Your task to perform on an android device: open chrome privacy settings Image 0: 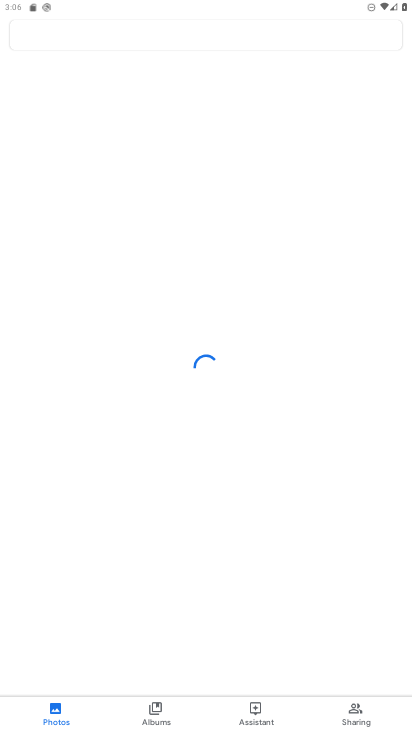
Step 0: press home button
Your task to perform on an android device: open chrome privacy settings Image 1: 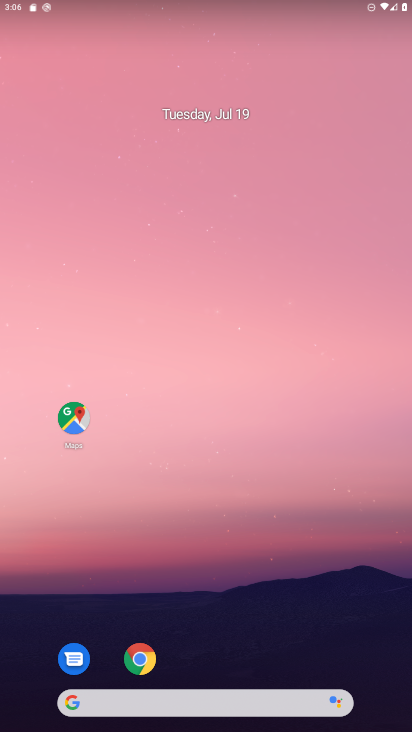
Step 1: click (141, 649)
Your task to perform on an android device: open chrome privacy settings Image 2: 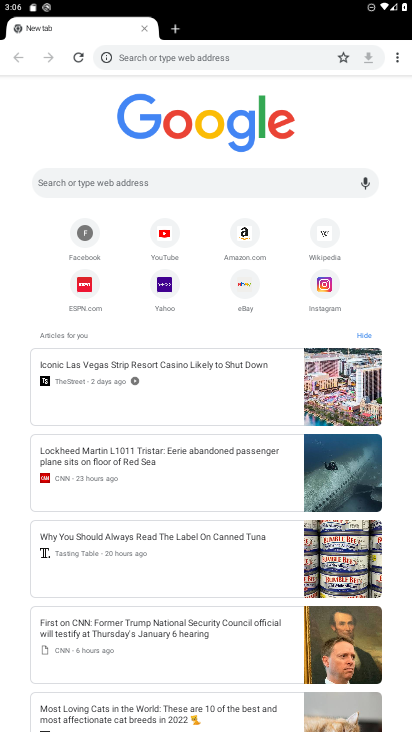
Step 2: click (397, 53)
Your task to perform on an android device: open chrome privacy settings Image 3: 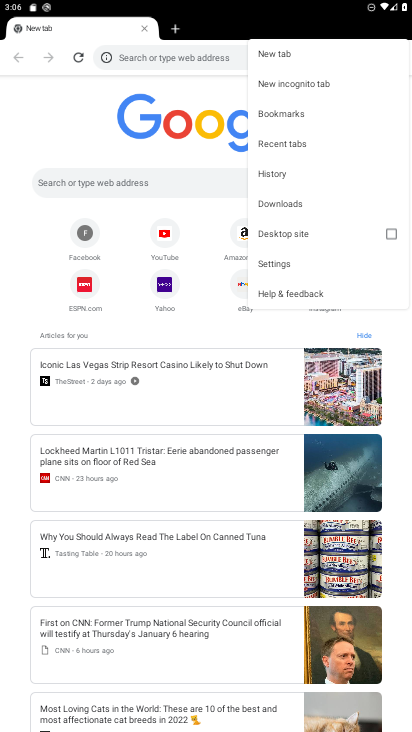
Step 3: click (292, 265)
Your task to perform on an android device: open chrome privacy settings Image 4: 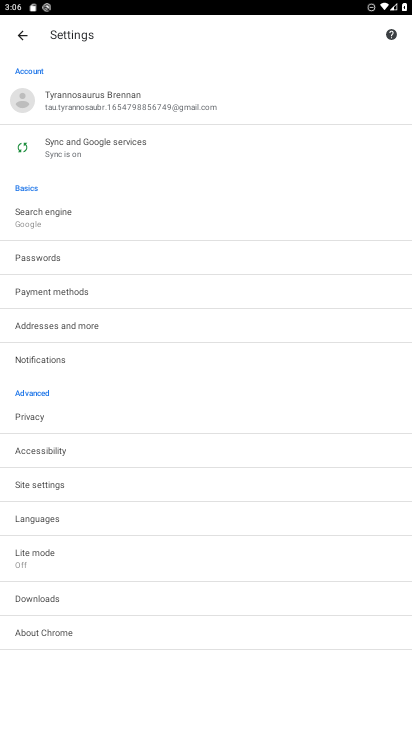
Step 4: click (107, 417)
Your task to perform on an android device: open chrome privacy settings Image 5: 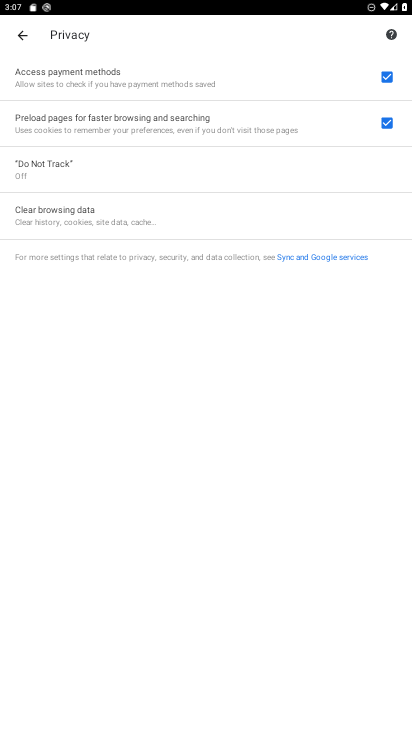
Step 5: task complete